Your task to perform on an android device: toggle translation in the chrome app Image 0: 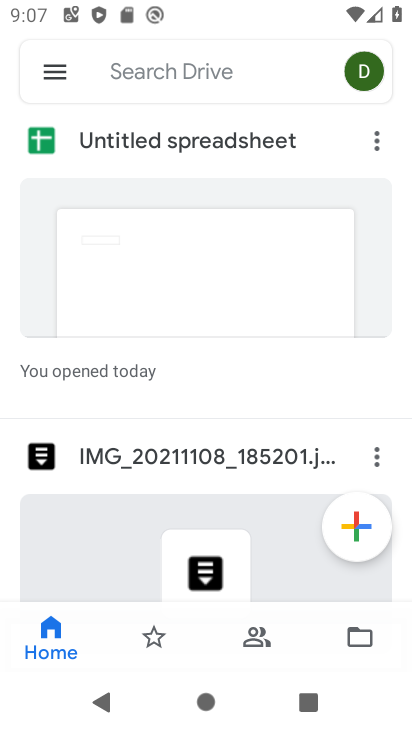
Step 0: press home button
Your task to perform on an android device: toggle translation in the chrome app Image 1: 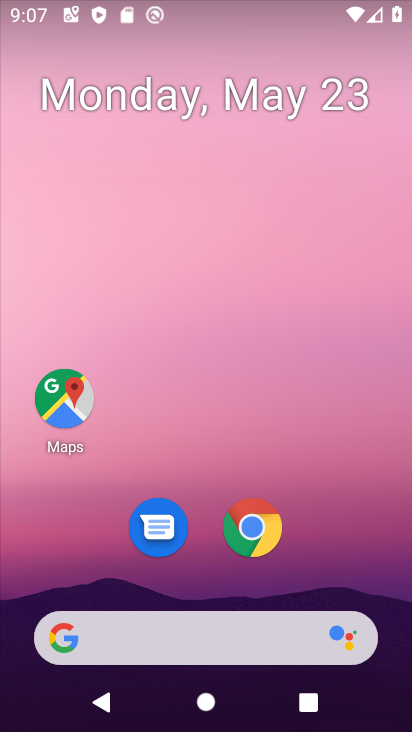
Step 1: click (254, 531)
Your task to perform on an android device: toggle translation in the chrome app Image 2: 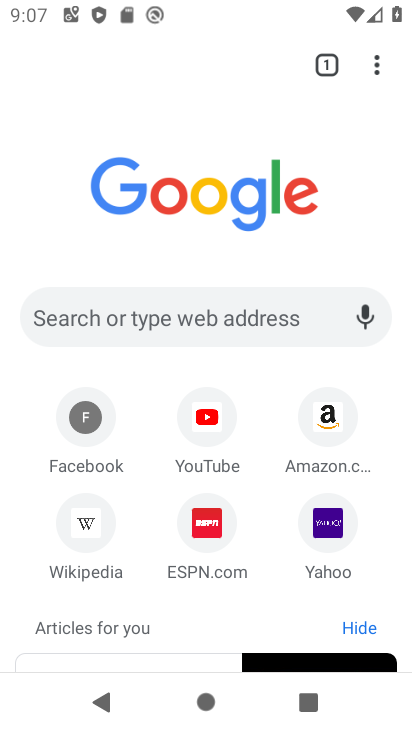
Step 2: click (372, 65)
Your task to perform on an android device: toggle translation in the chrome app Image 3: 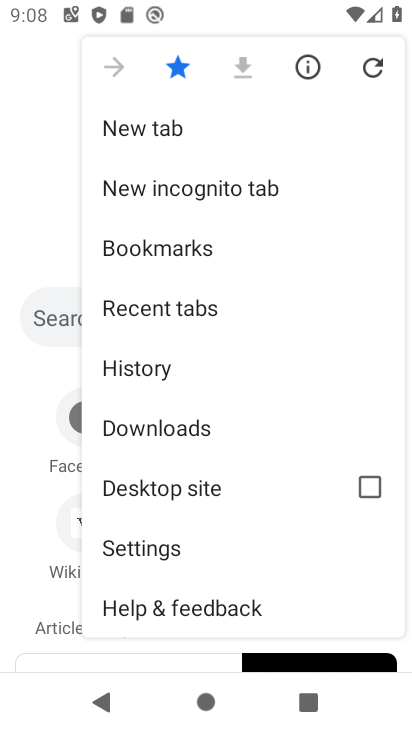
Step 3: click (183, 551)
Your task to perform on an android device: toggle translation in the chrome app Image 4: 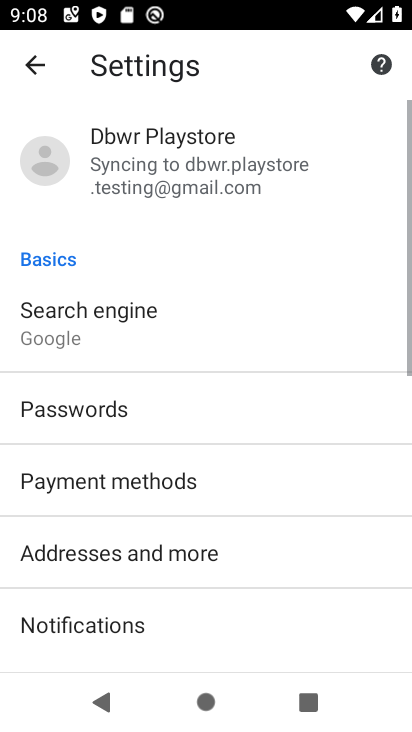
Step 4: drag from (273, 540) to (294, 119)
Your task to perform on an android device: toggle translation in the chrome app Image 5: 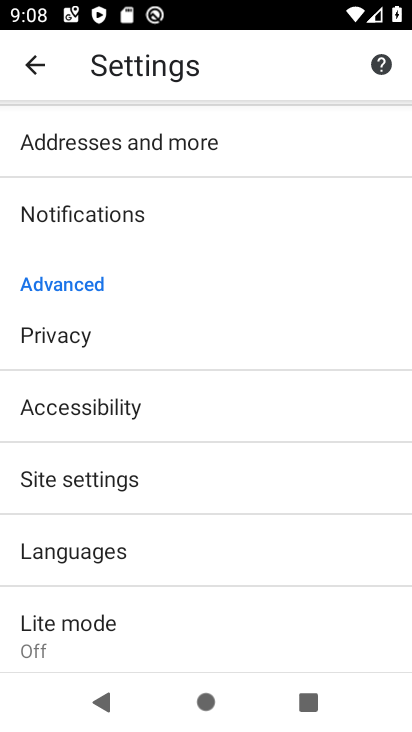
Step 5: click (221, 548)
Your task to perform on an android device: toggle translation in the chrome app Image 6: 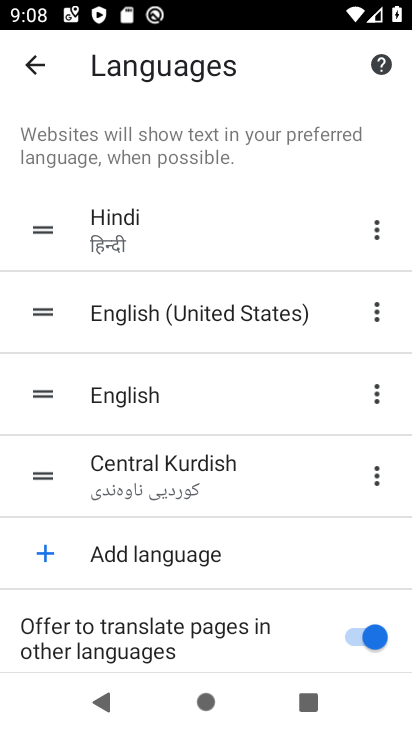
Step 6: click (357, 627)
Your task to perform on an android device: toggle translation in the chrome app Image 7: 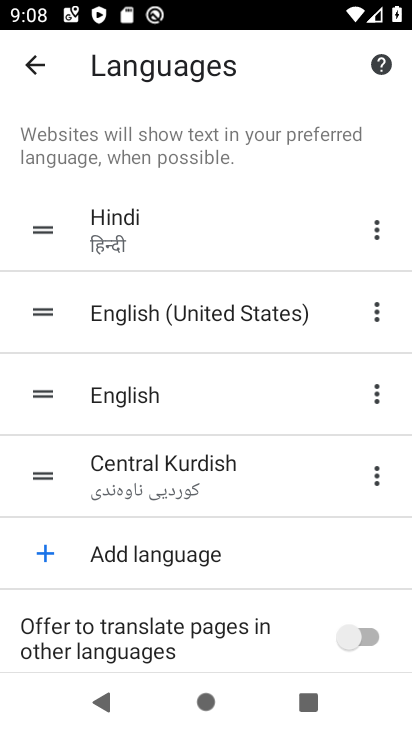
Step 7: task complete